Your task to perform on an android device: turn vacation reply on in the gmail app Image 0: 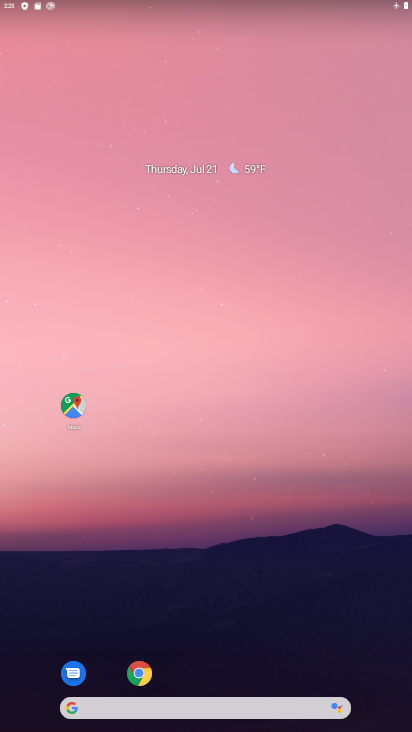
Step 0: drag from (369, 695) to (325, 167)
Your task to perform on an android device: turn vacation reply on in the gmail app Image 1: 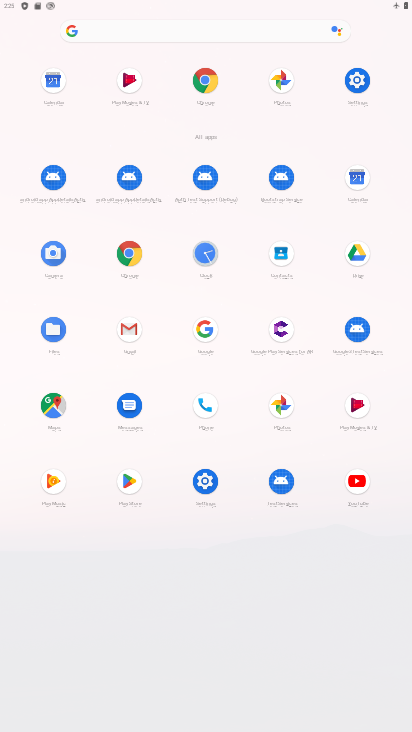
Step 1: click (129, 327)
Your task to perform on an android device: turn vacation reply on in the gmail app Image 2: 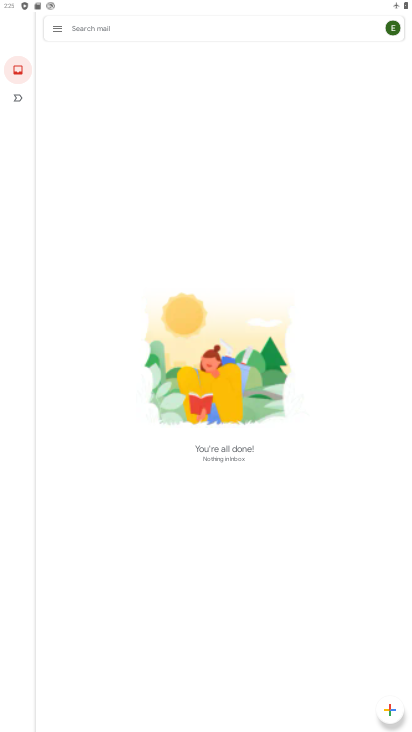
Step 2: click (55, 31)
Your task to perform on an android device: turn vacation reply on in the gmail app Image 3: 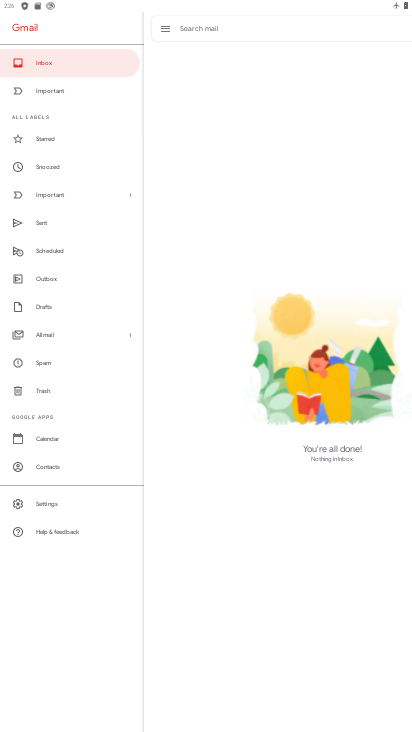
Step 3: click (42, 501)
Your task to perform on an android device: turn vacation reply on in the gmail app Image 4: 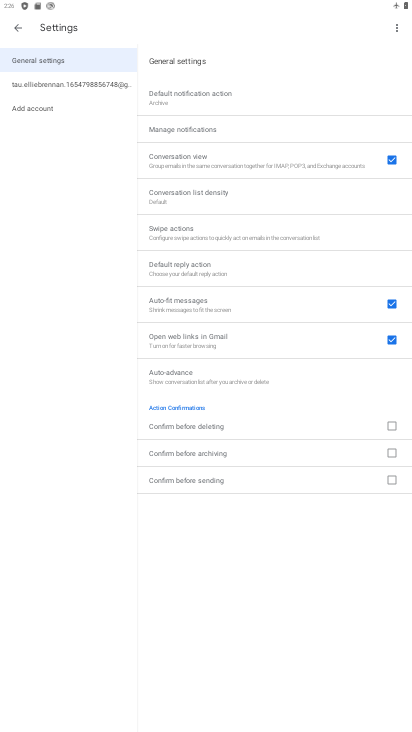
Step 4: click (63, 88)
Your task to perform on an android device: turn vacation reply on in the gmail app Image 5: 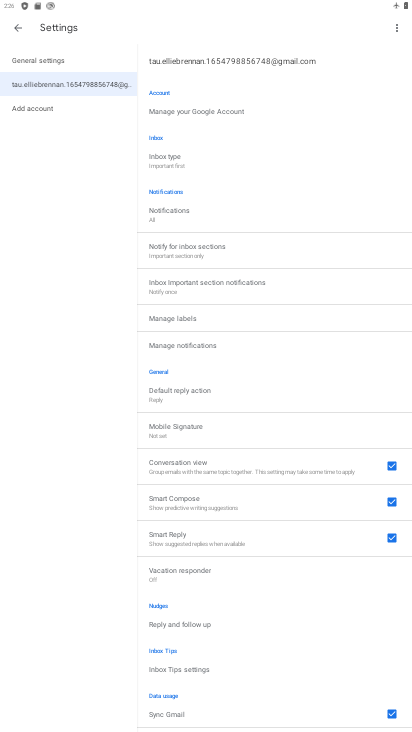
Step 5: click (175, 577)
Your task to perform on an android device: turn vacation reply on in the gmail app Image 6: 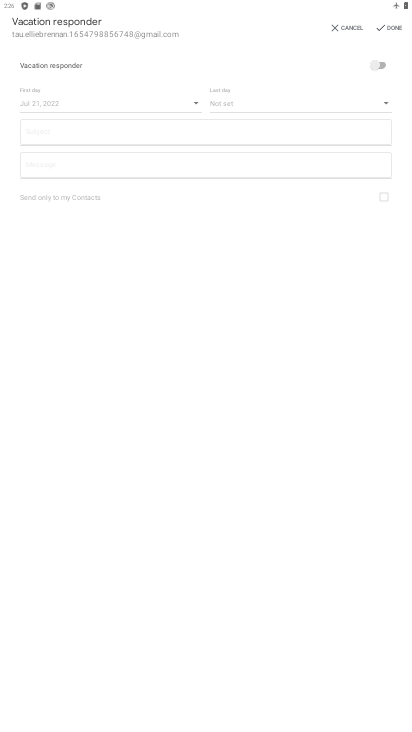
Step 6: click (382, 68)
Your task to perform on an android device: turn vacation reply on in the gmail app Image 7: 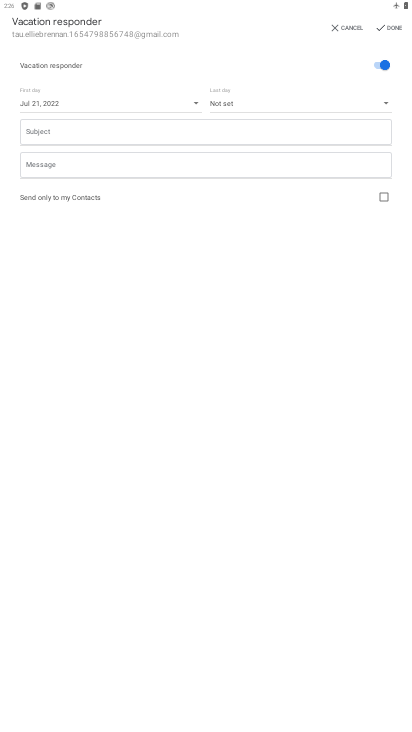
Step 7: click (391, 28)
Your task to perform on an android device: turn vacation reply on in the gmail app Image 8: 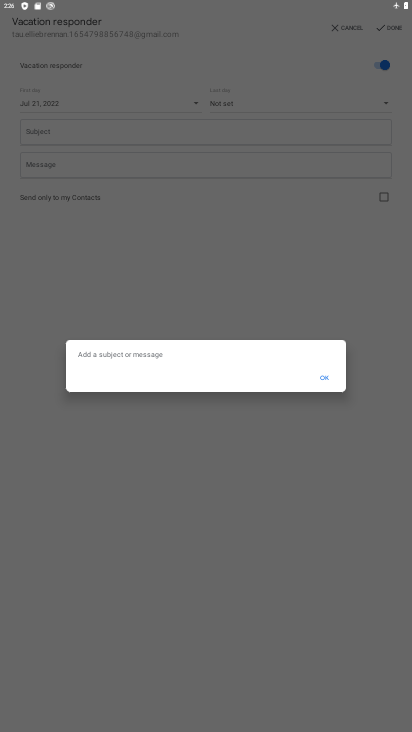
Step 8: click (321, 379)
Your task to perform on an android device: turn vacation reply on in the gmail app Image 9: 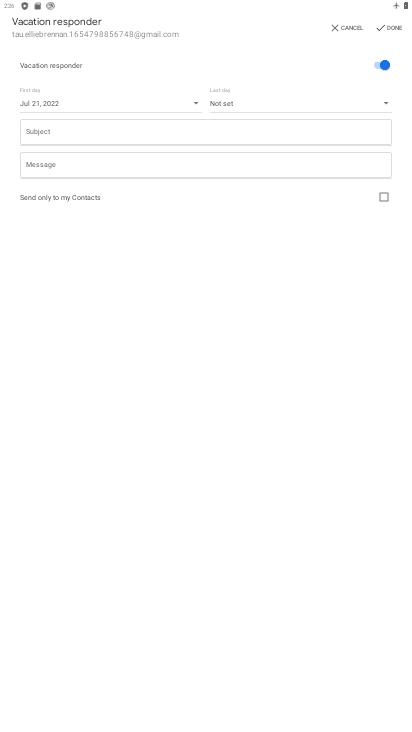
Step 9: task complete